Your task to perform on an android device: What's the price of the Galaxy phone on eBay? Image 0: 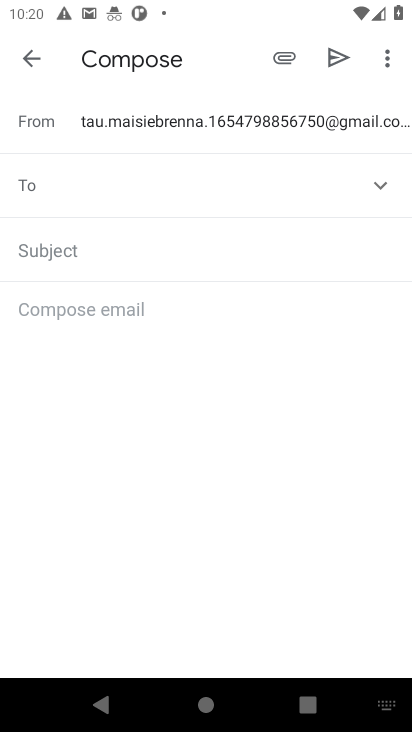
Step 0: press home button
Your task to perform on an android device: What's the price of the Galaxy phone on eBay? Image 1: 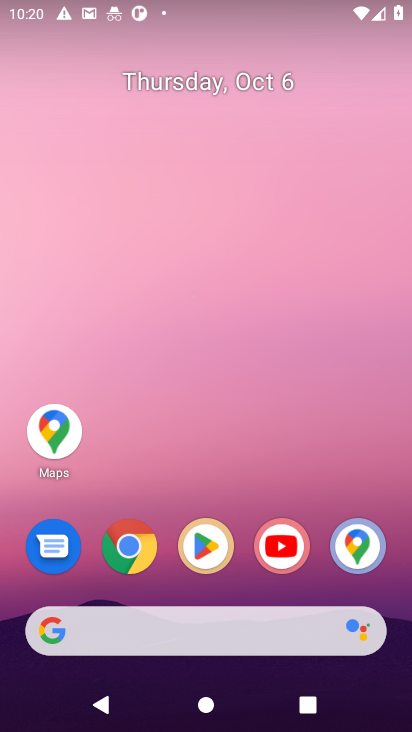
Step 1: click (131, 549)
Your task to perform on an android device: What's the price of the Galaxy phone on eBay? Image 2: 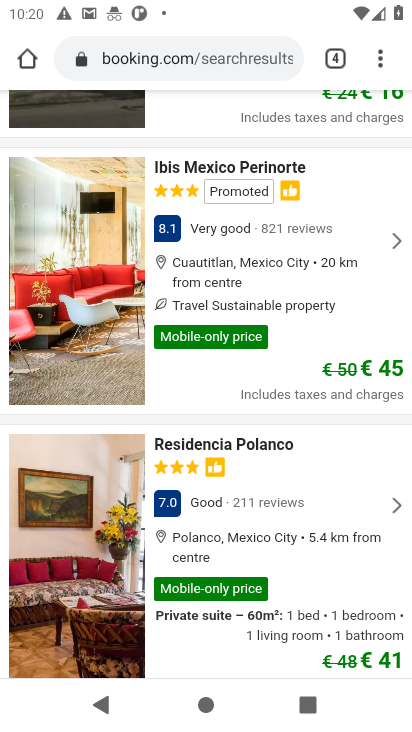
Step 2: click (223, 42)
Your task to perform on an android device: What's the price of the Galaxy phone on eBay? Image 3: 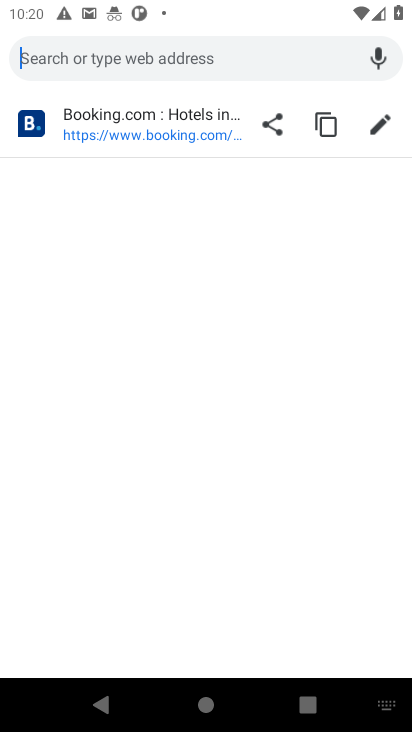
Step 3: type "ebay"
Your task to perform on an android device: What's the price of the Galaxy phone on eBay? Image 4: 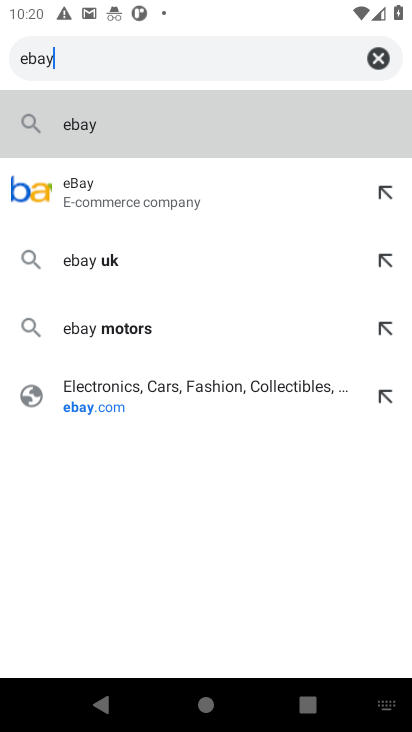
Step 4: click (112, 184)
Your task to perform on an android device: What's the price of the Galaxy phone on eBay? Image 5: 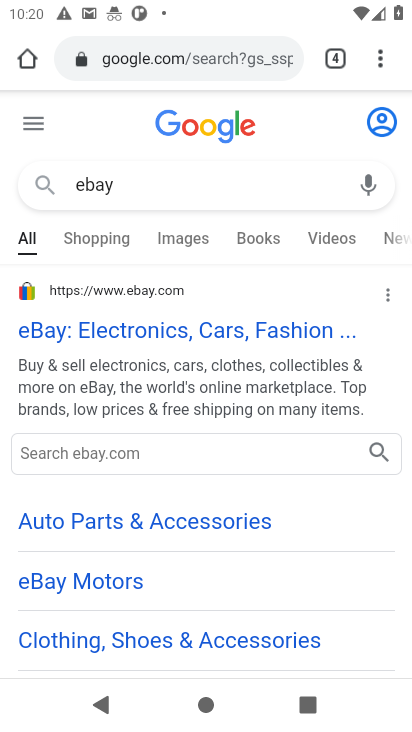
Step 5: click (52, 330)
Your task to perform on an android device: What's the price of the Galaxy phone on eBay? Image 6: 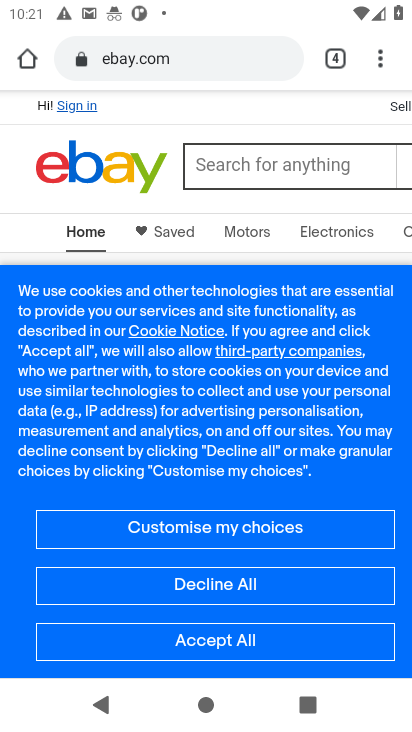
Step 6: click (240, 165)
Your task to perform on an android device: What's the price of the Galaxy phone on eBay? Image 7: 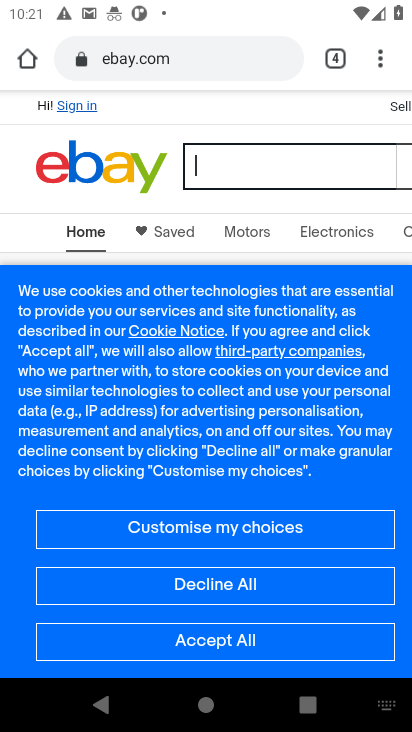
Step 7: type "galaxy phone"
Your task to perform on an android device: What's the price of the Galaxy phone on eBay? Image 8: 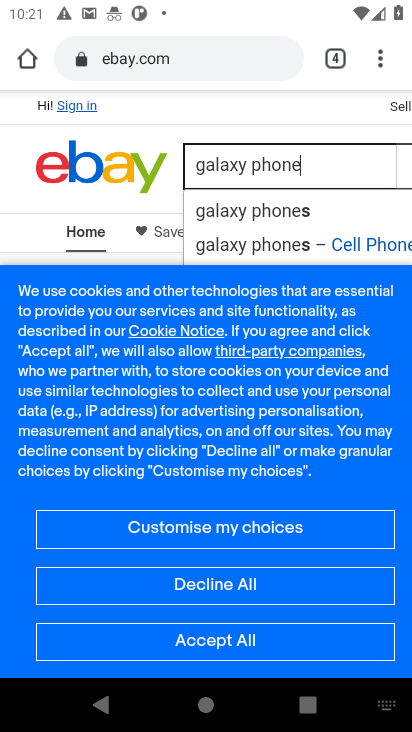
Step 8: click (224, 207)
Your task to perform on an android device: What's the price of the Galaxy phone on eBay? Image 9: 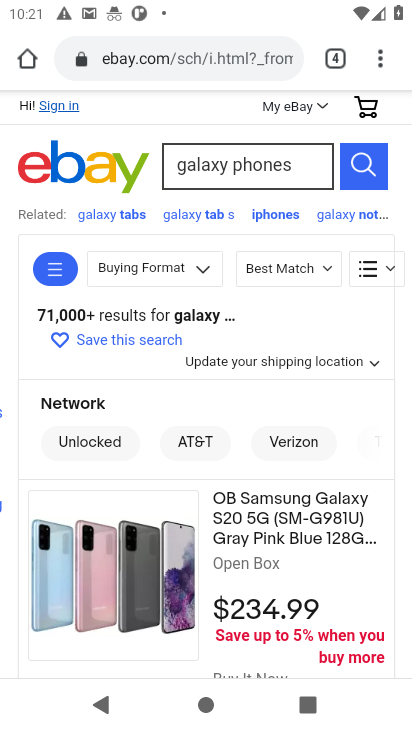
Step 9: task complete